Your task to perform on an android device: stop showing notifications on the lock screen Image 0: 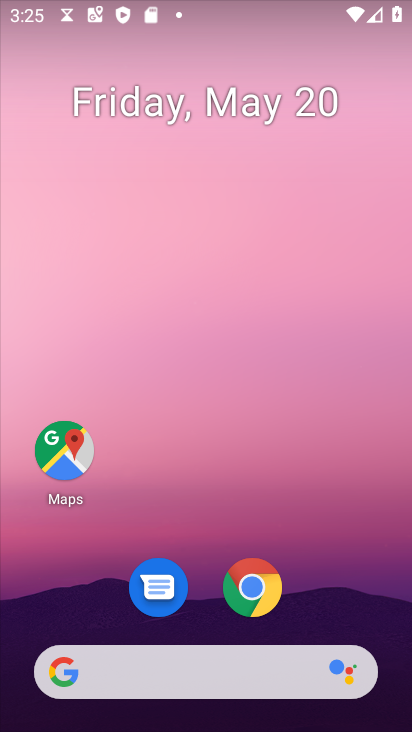
Step 0: drag from (323, 527) to (329, 63)
Your task to perform on an android device: stop showing notifications on the lock screen Image 1: 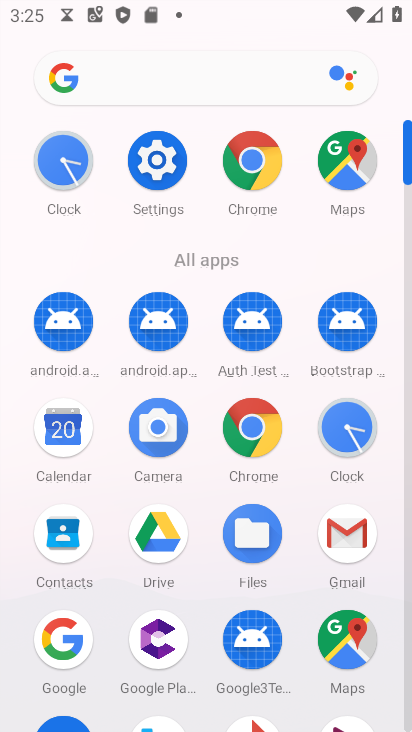
Step 1: click (154, 165)
Your task to perform on an android device: stop showing notifications on the lock screen Image 2: 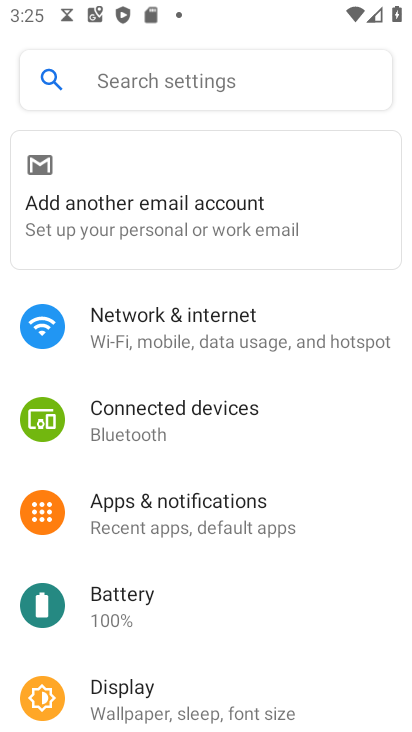
Step 2: drag from (192, 598) to (191, 499)
Your task to perform on an android device: stop showing notifications on the lock screen Image 3: 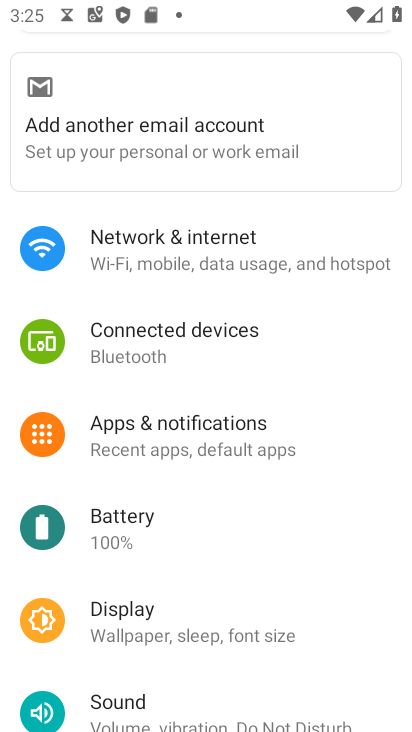
Step 3: click (209, 418)
Your task to perform on an android device: stop showing notifications on the lock screen Image 4: 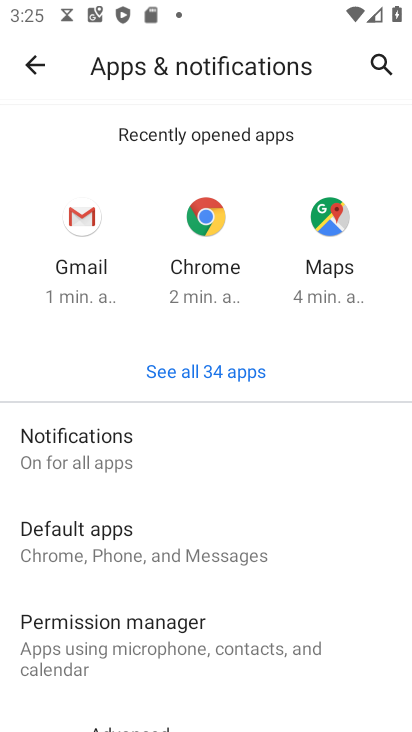
Step 4: click (214, 437)
Your task to perform on an android device: stop showing notifications on the lock screen Image 5: 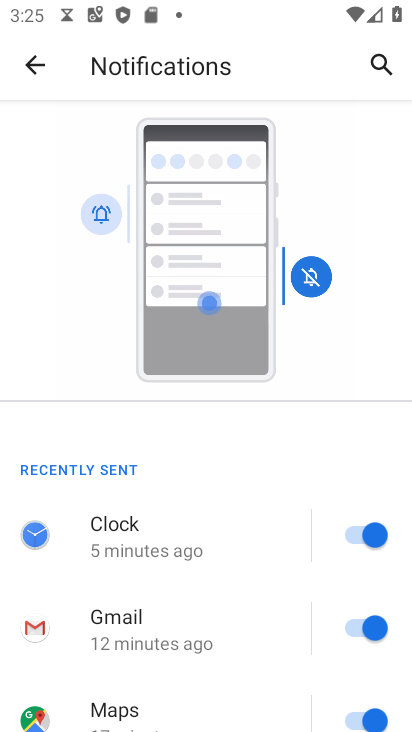
Step 5: click (117, 0)
Your task to perform on an android device: stop showing notifications on the lock screen Image 6: 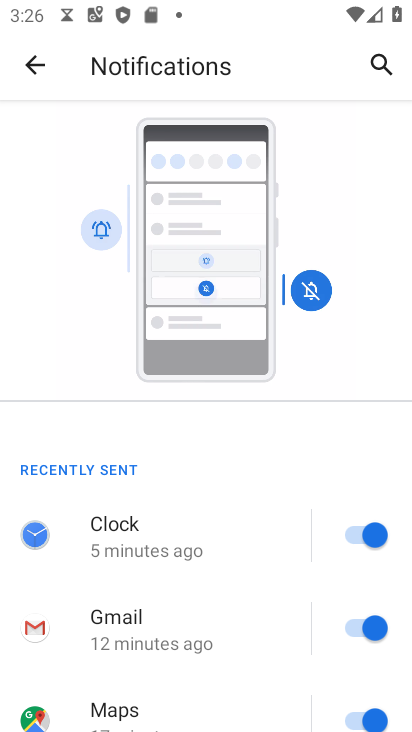
Step 6: drag from (219, 589) to (212, 174)
Your task to perform on an android device: stop showing notifications on the lock screen Image 7: 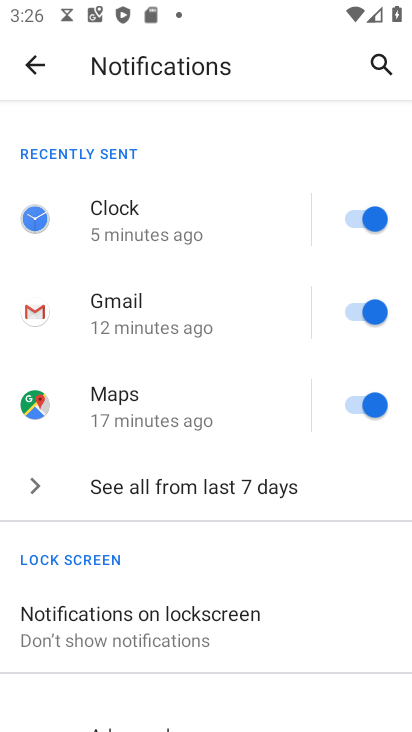
Step 7: click (305, 642)
Your task to perform on an android device: stop showing notifications on the lock screen Image 8: 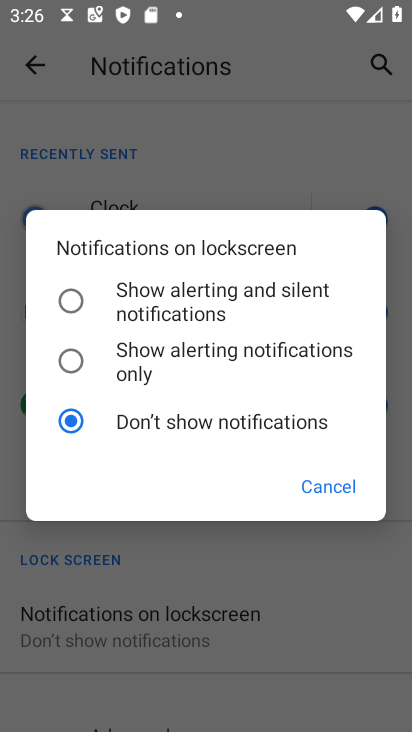
Step 8: task complete